Your task to perform on an android device: Check the news Image 0: 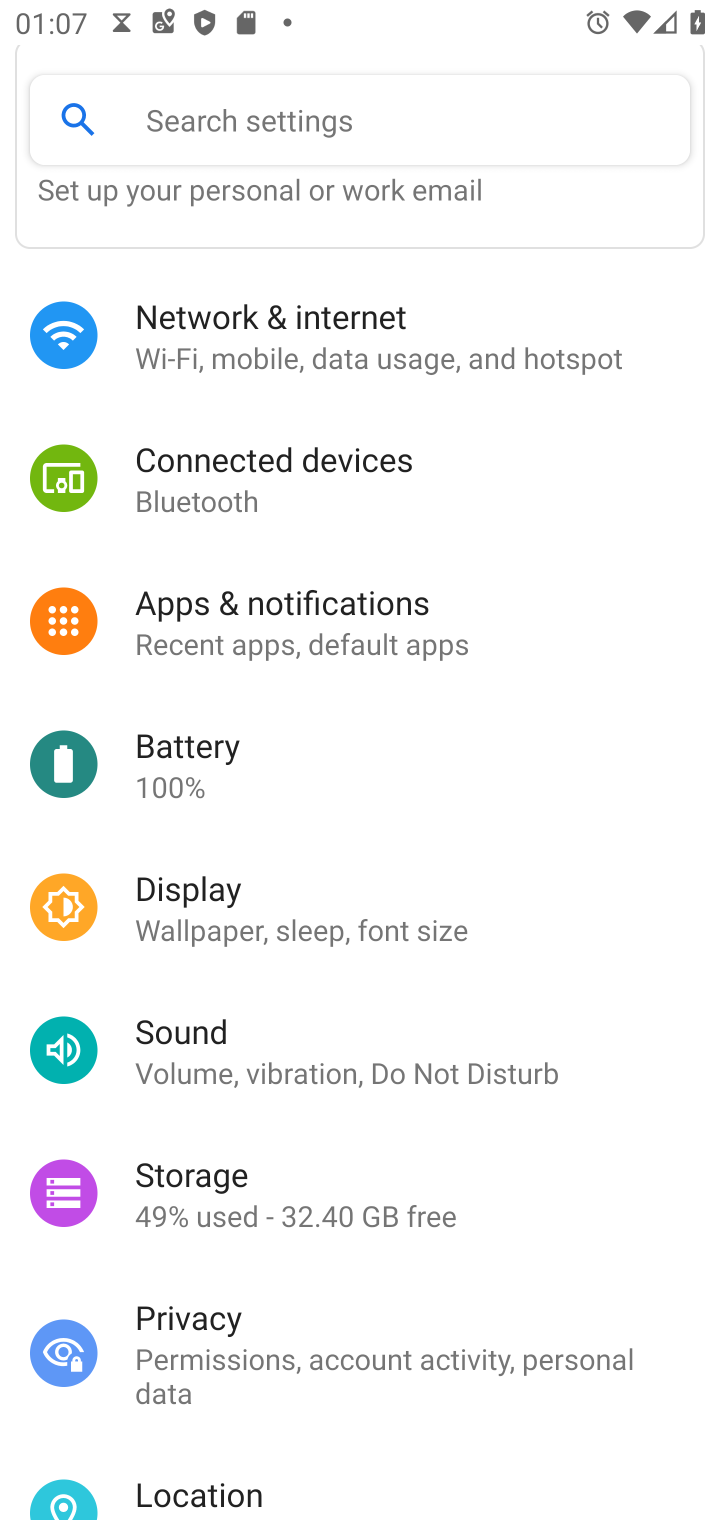
Step 0: press home button
Your task to perform on an android device: Check the news Image 1: 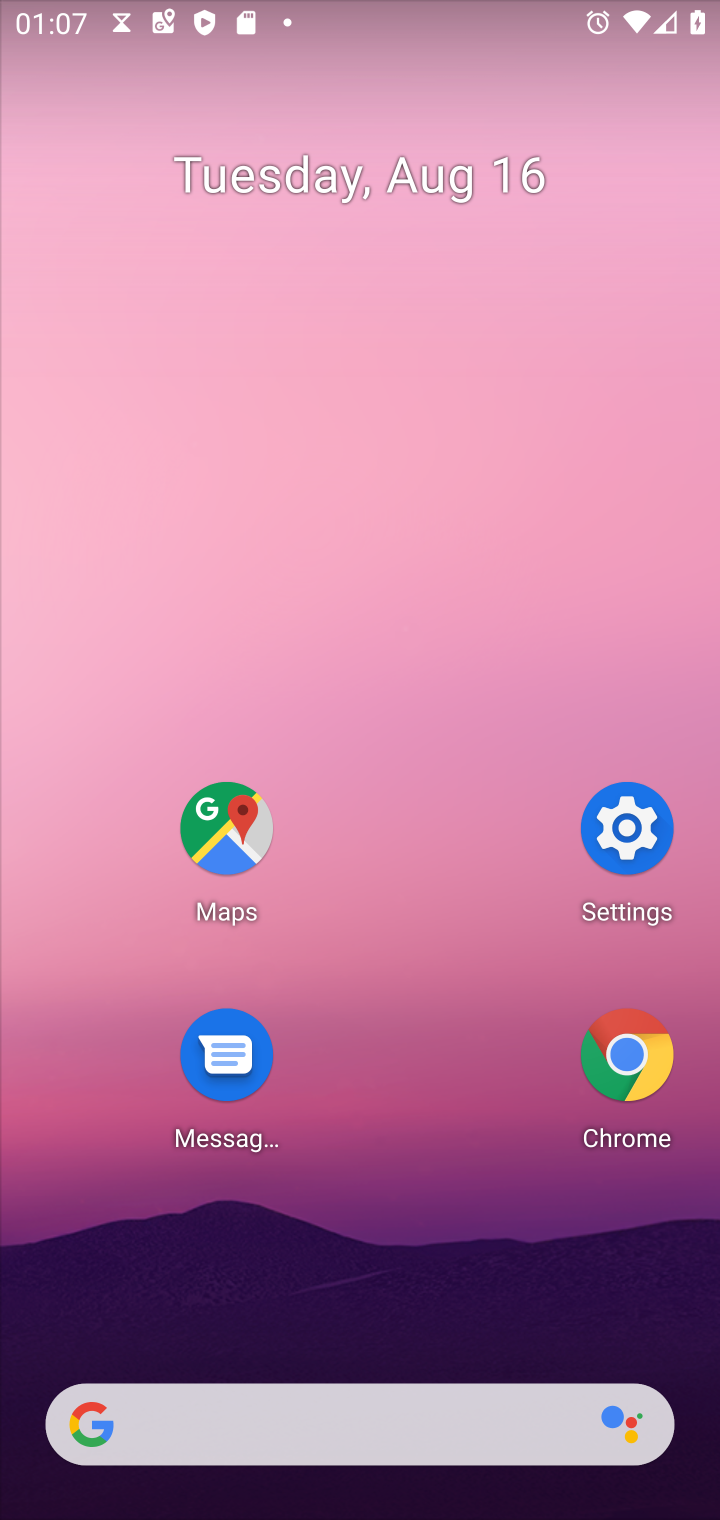
Step 1: click (289, 1406)
Your task to perform on an android device: Check the news Image 2: 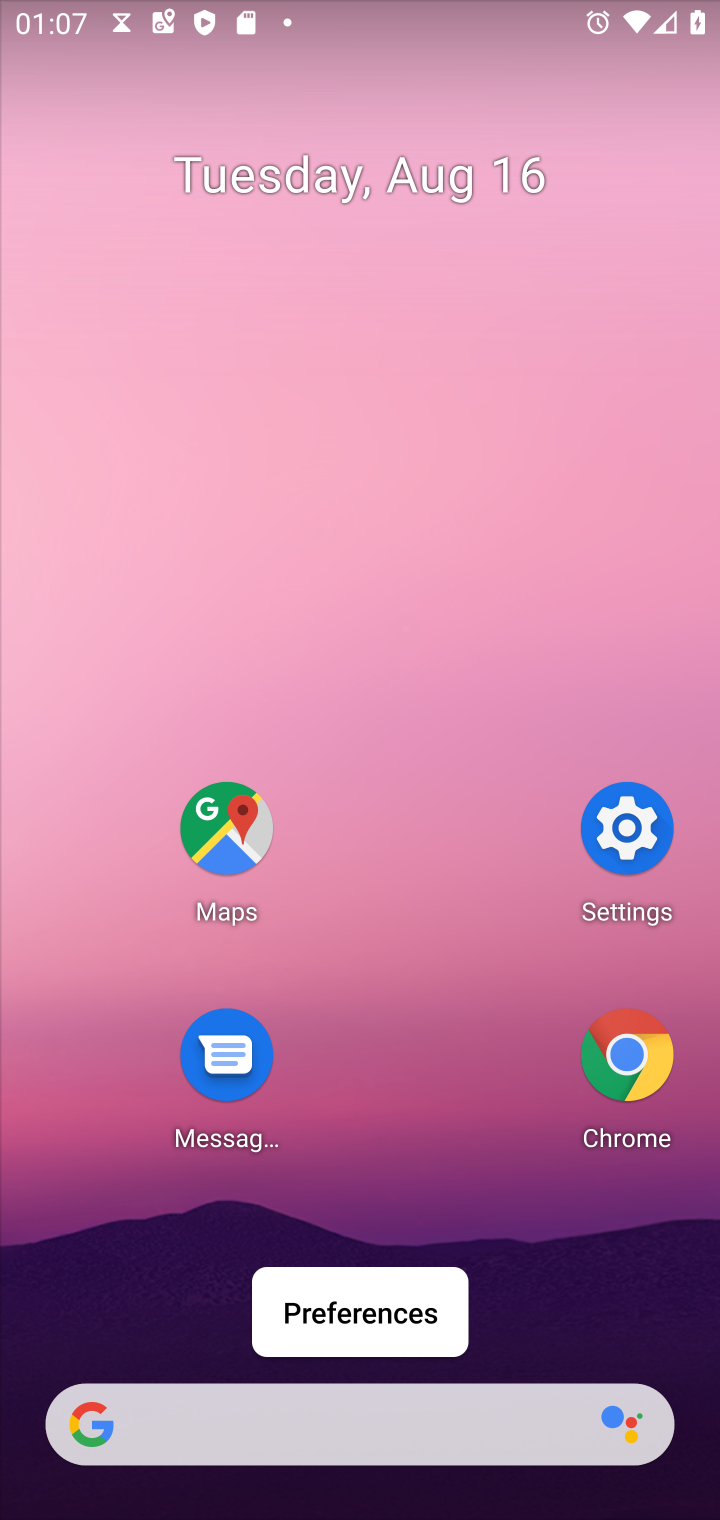
Step 2: click (289, 1410)
Your task to perform on an android device: Check the news Image 3: 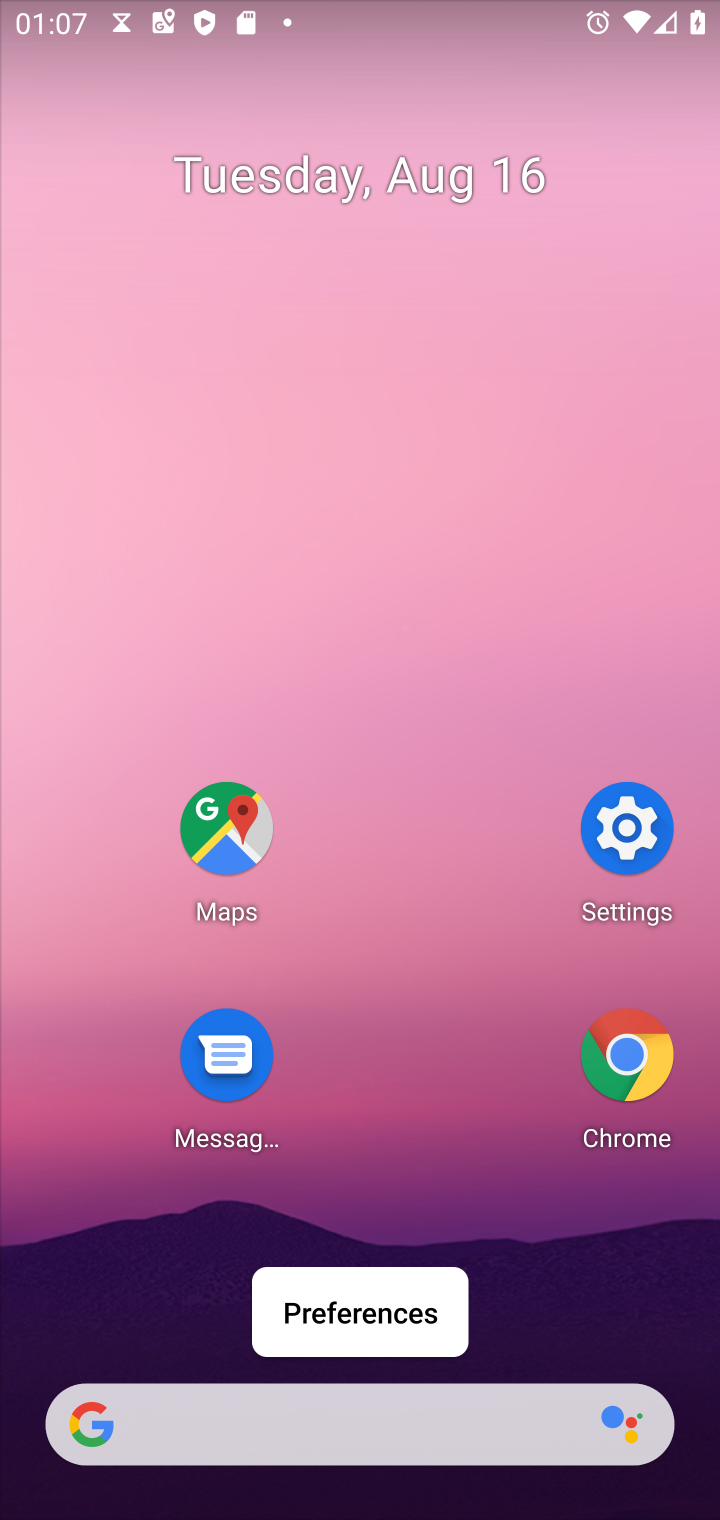
Step 3: click (289, 1421)
Your task to perform on an android device: Check the news Image 4: 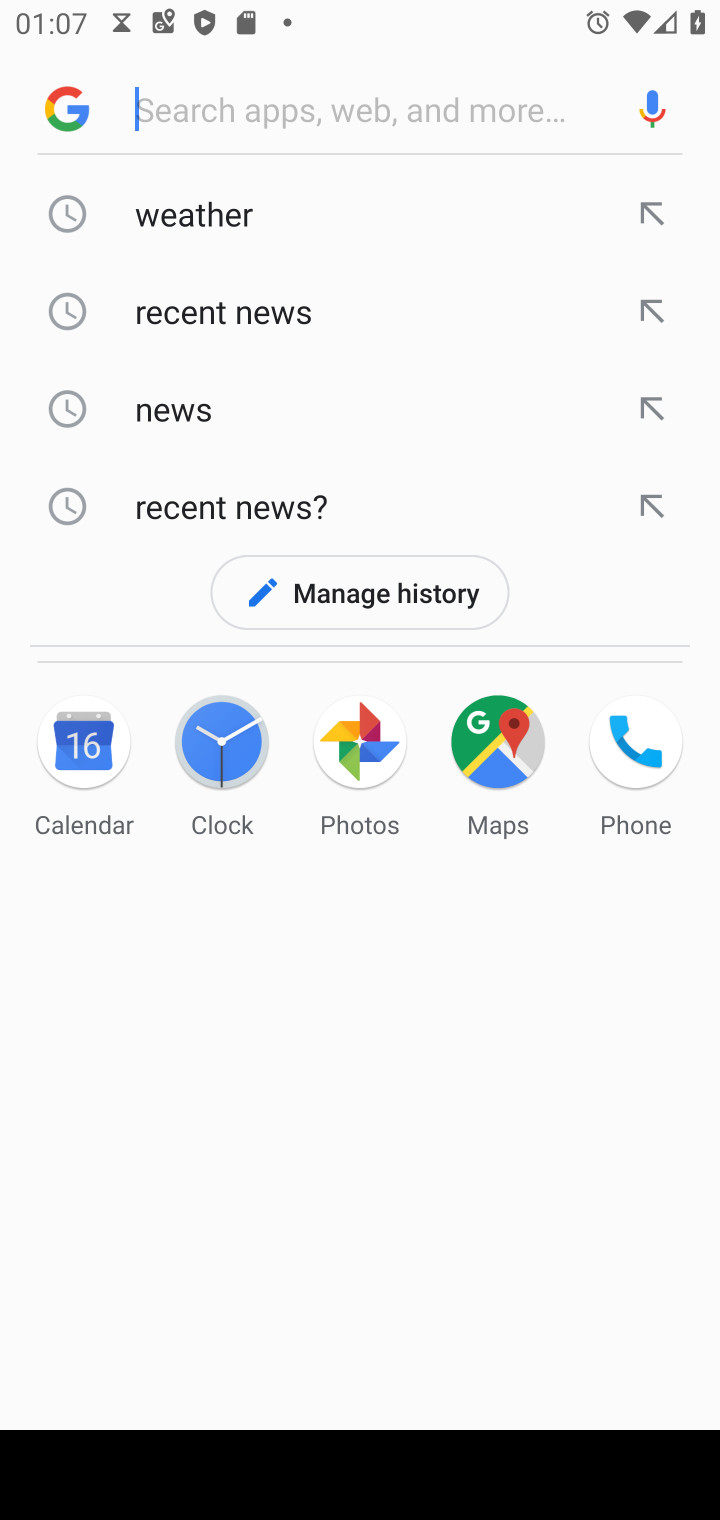
Step 4: click (171, 404)
Your task to perform on an android device: Check the news Image 5: 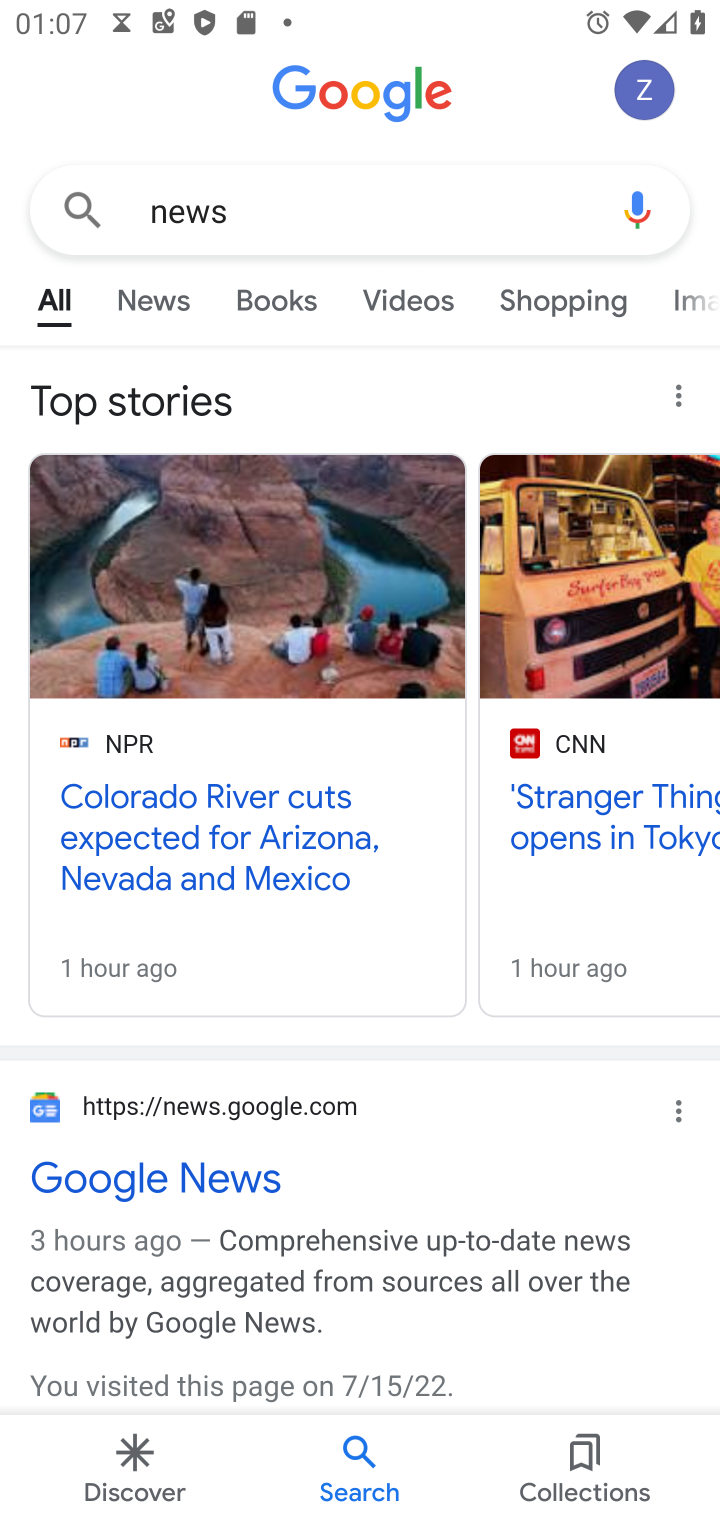
Step 5: click (167, 294)
Your task to perform on an android device: Check the news Image 6: 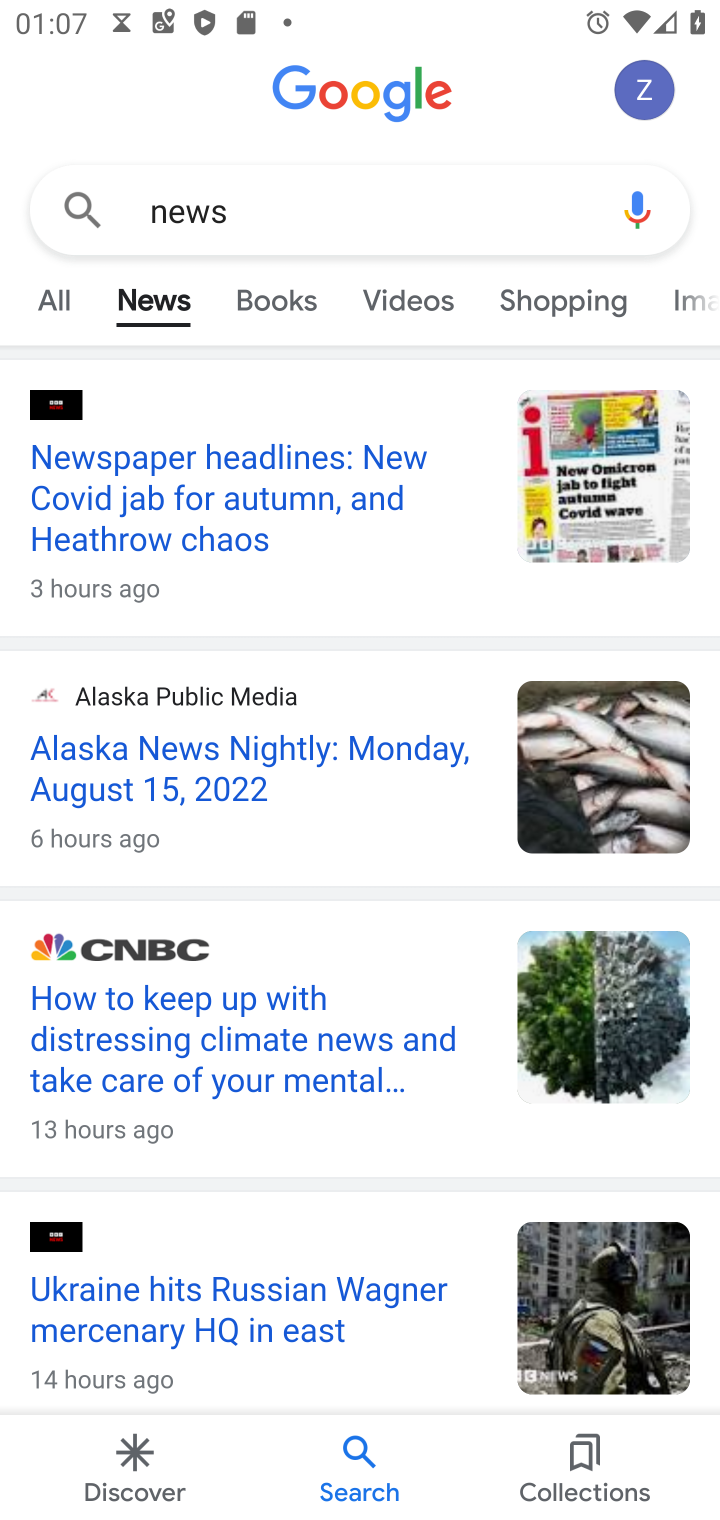
Step 6: task complete